Your task to perform on an android device: open app "Flipkart Online Shopping App" (install if not already installed) and enter user name: "fostered@gmail.com" and password: "negotiated" Image 0: 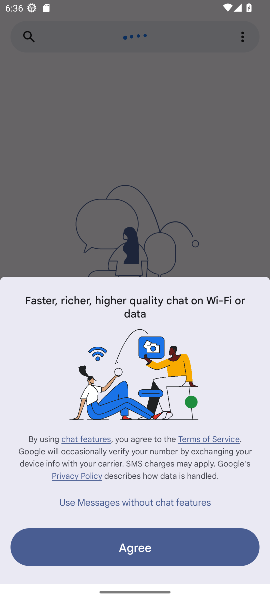
Step 0: press home button
Your task to perform on an android device: open app "Flipkart Online Shopping App" (install if not already installed) and enter user name: "fostered@gmail.com" and password: "negotiated" Image 1: 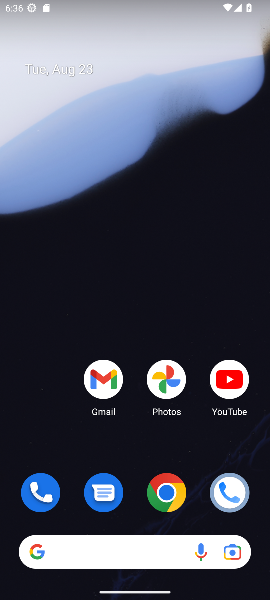
Step 1: drag from (54, 434) to (66, 48)
Your task to perform on an android device: open app "Flipkart Online Shopping App" (install if not already installed) and enter user name: "fostered@gmail.com" and password: "negotiated" Image 2: 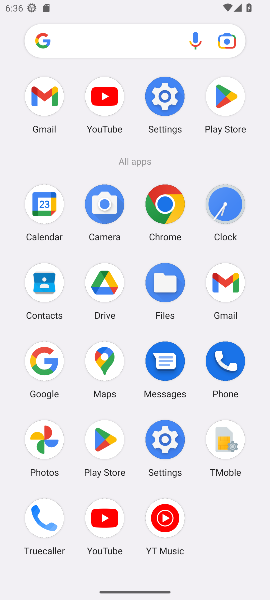
Step 2: click (226, 96)
Your task to perform on an android device: open app "Flipkart Online Shopping App" (install if not already installed) and enter user name: "fostered@gmail.com" and password: "negotiated" Image 3: 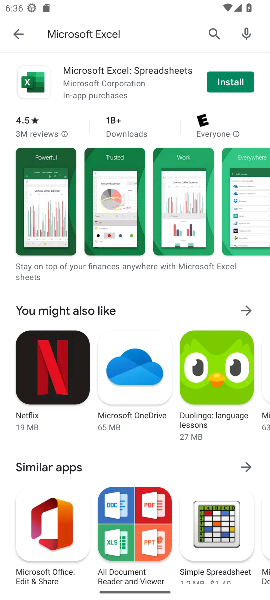
Step 3: press back button
Your task to perform on an android device: open app "Flipkart Online Shopping App" (install if not already installed) and enter user name: "fostered@gmail.com" and password: "negotiated" Image 4: 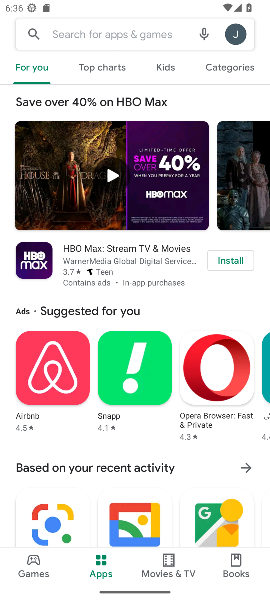
Step 4: click (91, 34)
Your task to perform on an android device: open app "Flipkart Online Shopping App" (install if not already installed) and enter user name: "fostered@gmail.com" and password: "negotiated" Image 5: 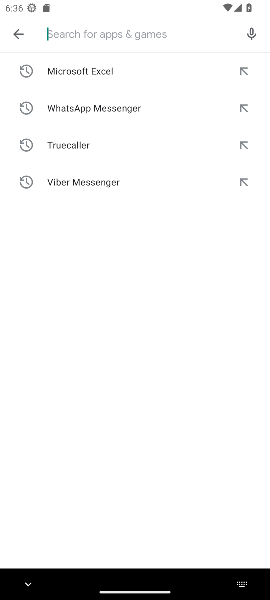
Step 5: type "Flipkart Online Shopping App"
Your task to perform on an android device: open app "Flipkart Online Shopping App" (install if not already installed) and enter user name: "fostered@gmail.com" and password: "negotiated" Image 6: 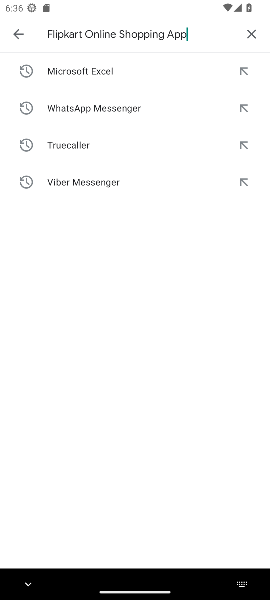
Step 6: press enter
Your task to perform on an android device: open app "Flipkart Online Shopping App" (install if not already installed) and enter user name: "fostered@gmail.com" and password: "negotiated" Image 7: 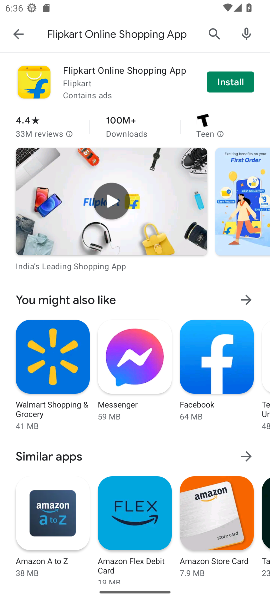
Step 7: click (226, 78)
Your task to perform on an android device: open app "Flipkart Online Shopping App" (install if not already installed) and enter user name: "fostered@gmail.com" and password: "negotiated" Image 8: 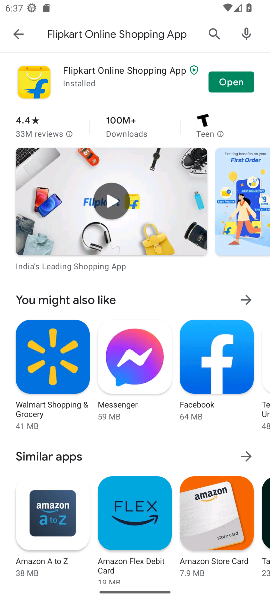
Step 8: click (232, 81)
Your task to perform on an android device: open app "Flipkart Online Shopping App" (install if not already installed) and enter user name: "fostered@gmail.com" and password: "negotiated" Image 9: 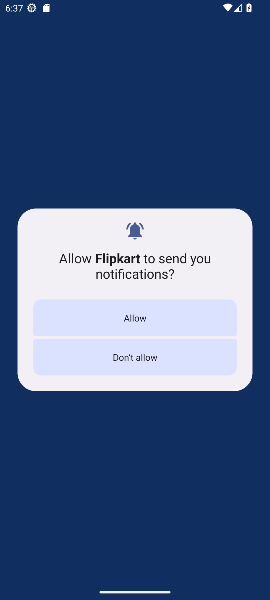
Step 9: click (136, 351)
Your task to perform on an android device: open app "Flipkart Online Shopping App" (install if not already installed) and enter user name: "fostered@gmail.com" and password: "negotiated" Image 10: 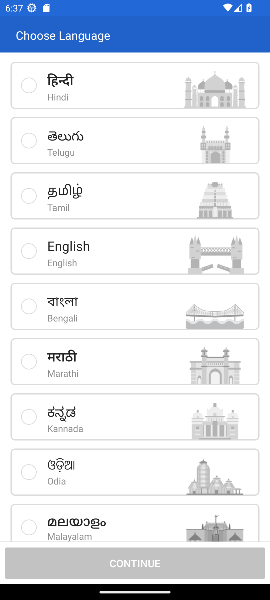
Step 10: click (89, 253)
Your task to perform on an android device: open app "Flipkart Online Shopping App" (install if not already installed) and enter user name: "fostered@gmail.com" and password: "negotiated" Image 11: 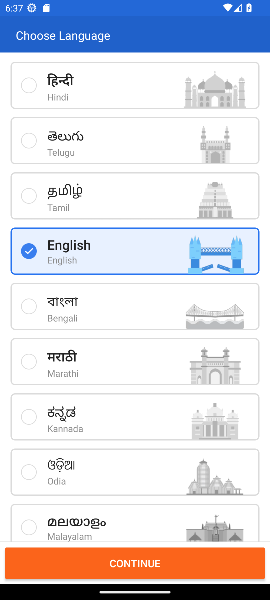
Step 11: click (146, 560)
Your task to perform on an android device: open app "Flipkart Online Shopping App" (install if not already installed) and enter user name: "fostered@gmail.com" and password: "negotiated" Image 12: 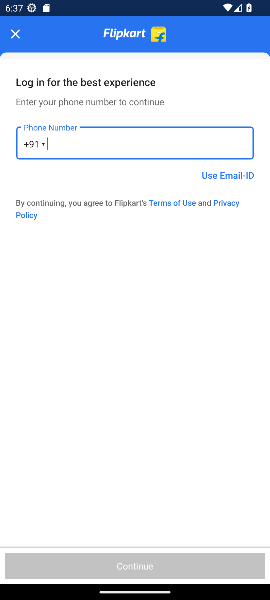
Step 12: type "fostered@gmail.com"
Your task to perform on an android device: open app "Flipkart Online Shopping App" (install if not already installed) and enter user name: "fostered@gmail.com" and password: "negotiated" Image 13: 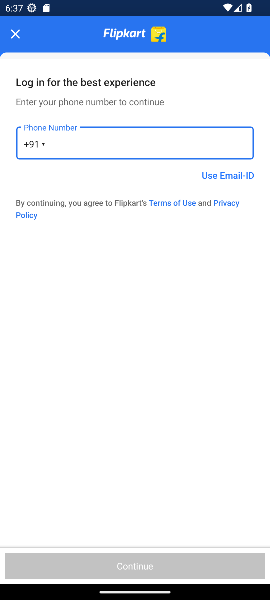
Step 13: click (231, 175)
Your task to perform on an android device: open app "Flipkart Online Shopping App" (install if not already installed) and enter user name: "fostered@gmail.com" and password: "negotiated" Image 14: 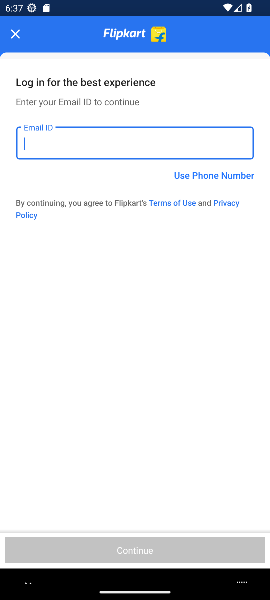
Step 14: click (94, 142)
Your task to perform on an android device: open app "Flipkart Online Shopping App" (install if not already installed) and enter user name: "fostered@gmail.com" and password: "negotiated" Image 15: 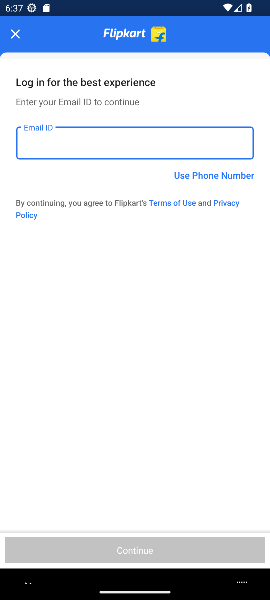
Step 15: type "fostered@gmail.com"
Your task to perform on an android device: open app "Flipkart Online Shopping App" (install if not already installed) and enter user name: "fostered@gmail.com" and password: "negotiated" Image 16: 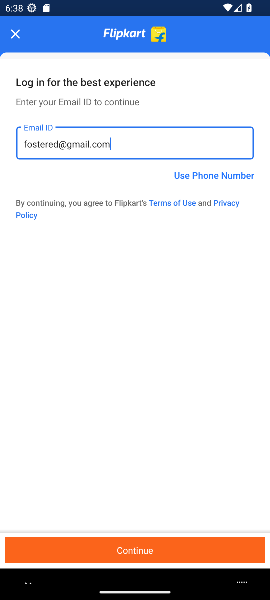
Step 16: press enter
Your task to perform on an android device: open app "Flipkart Online Shopping App" (install if not already installed) and enter user name: "fostered@gmail.com" and password: "negotiated" Image 17: 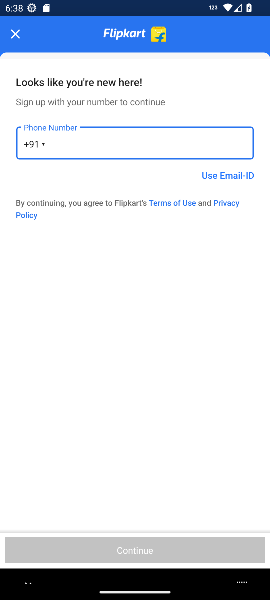
Step 17: task complete